Your task to perform on an android device: Go to wifi settings Image 0: 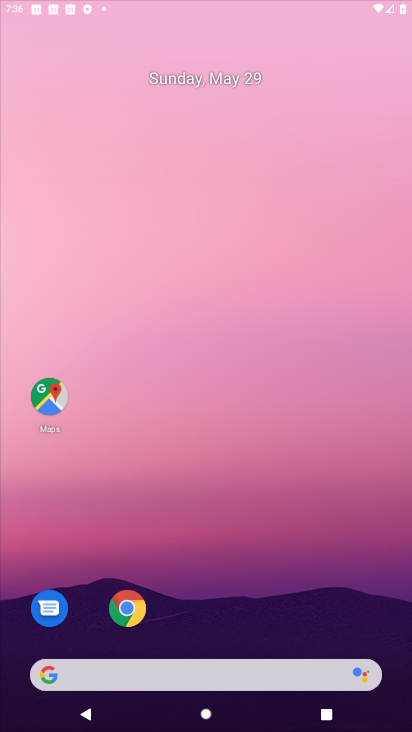
Step 0: click (146, 203)
Your task to perform on an android device: Go to wifi settings Image 1: 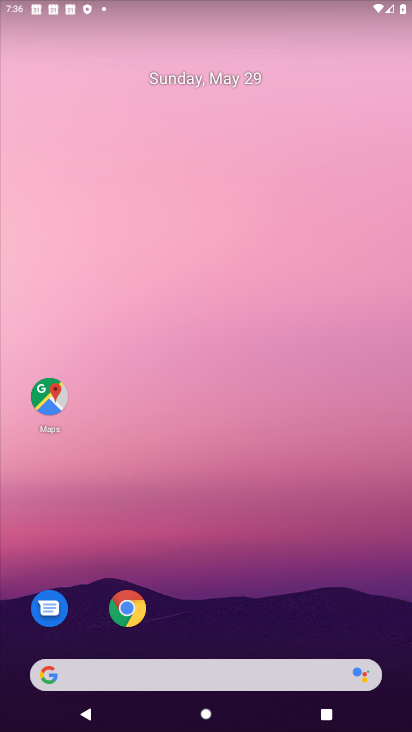
Step 1: press home button
Your task to perform on an android device: Go to wifi settings Image 2: 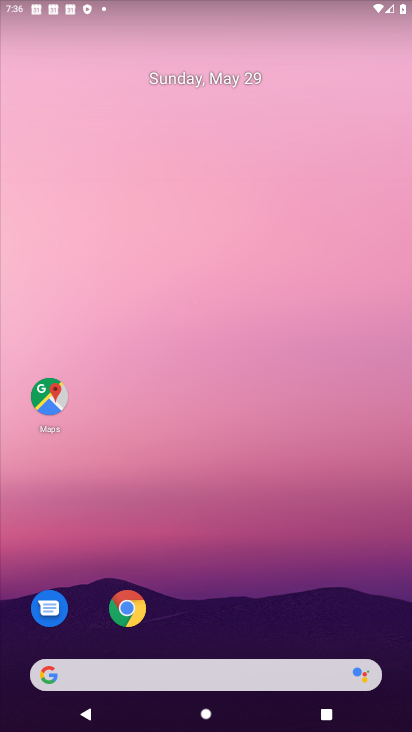
Step 2: drag from (215, 549) to (120, 60)
Your task to perform on an android device: Go to wifi settings Image 3: 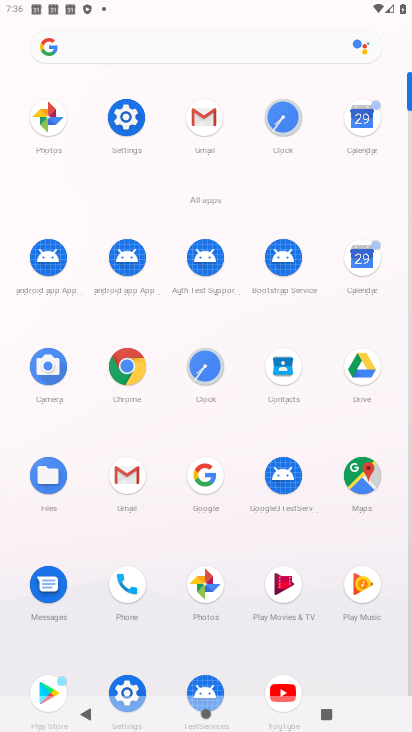
Step 3: click (121, 119)
Your task to perform on an android device: Go to wifi settings Image 4: 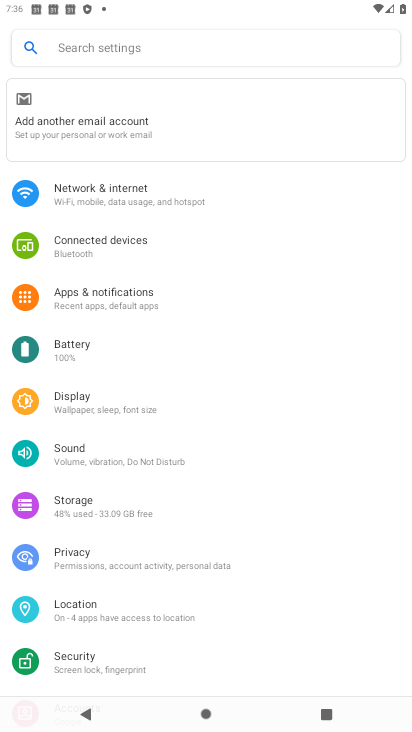
Step 4: click (89, 186)
Your task to perform on an android device: Go to wifi settings Image 5: 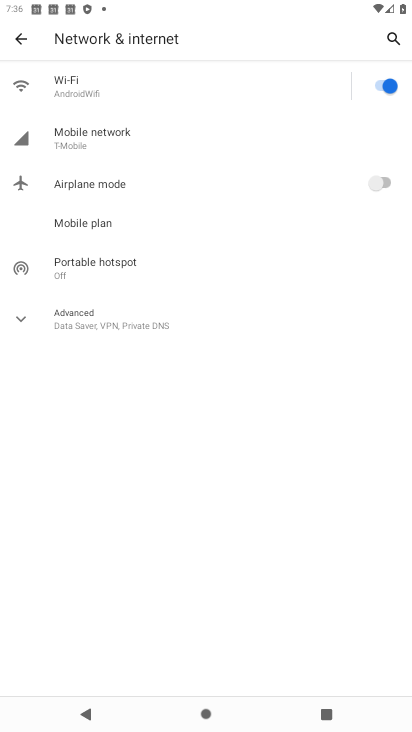
Step 5: click (185, 71)
Your task to perform on an android device: Go to wifi settings Image 6: 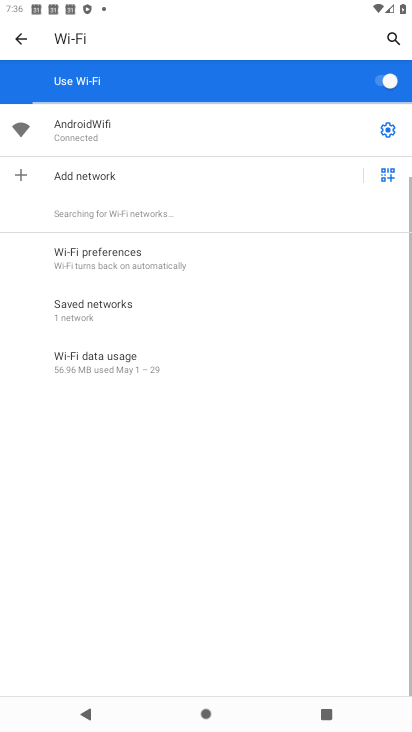
Step 6: task complete